Your task to perform on an android device: Search for seafood restaurants on Google Maps Image 0: 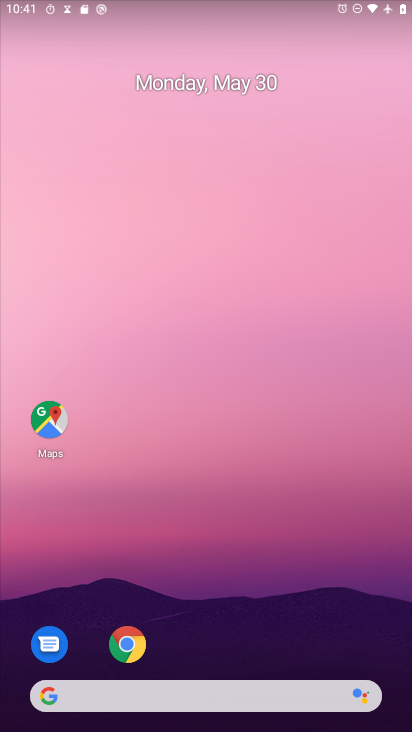
Step 0: drag from (213, 623) to (259, 52)
Your task to perform on an android device: Search for seafood restaurants on Google Maps Image 1: 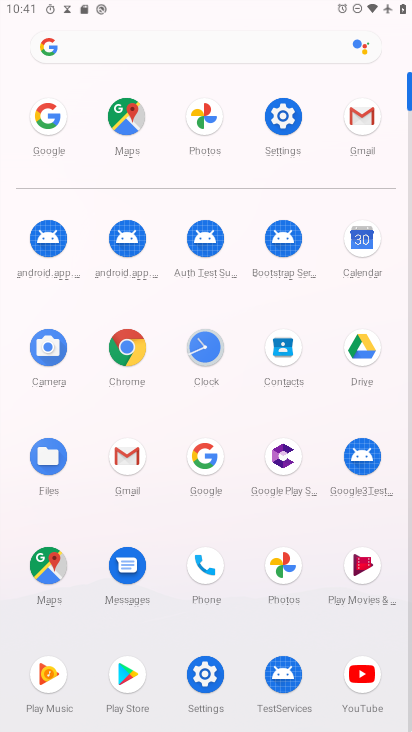
Step 1: click (46, 570)
Your task to perform on an android device: Search for seafood restaurants on Google Maps Image 2: 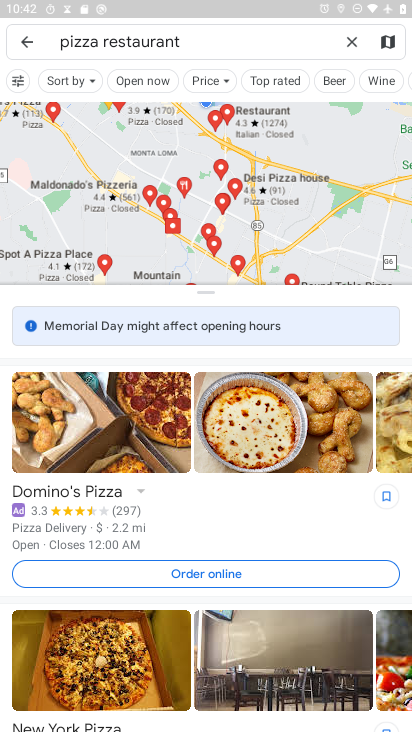
Step 2: click (350, 43)
Your task to perform on an android device: Search for seafood restaurants on Google Maps Image 3: 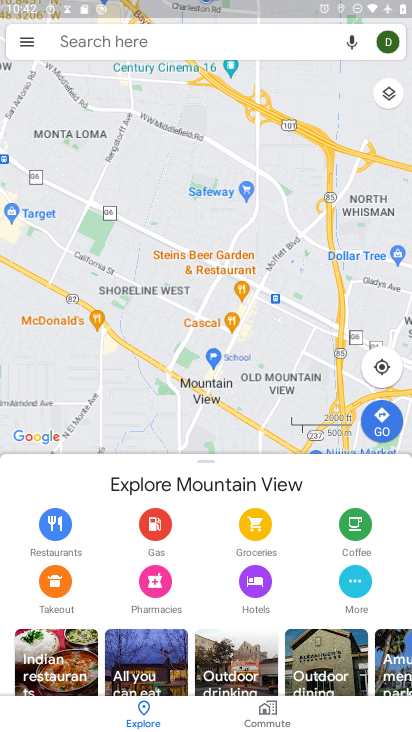
Step 3: click (138, 49)
Your task to perform on an android device: Search for seafood restaurants on Google Maps Image 4: 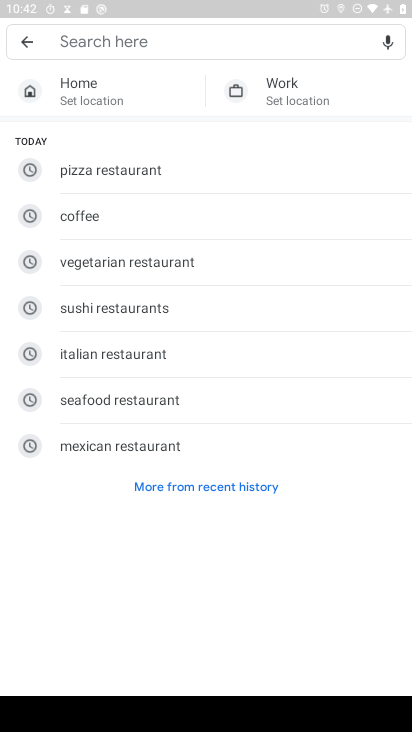
Step 4: click (115, 399)
Your task to perform on an android device: Search for seafood restaurants on Google Maps Image 5: 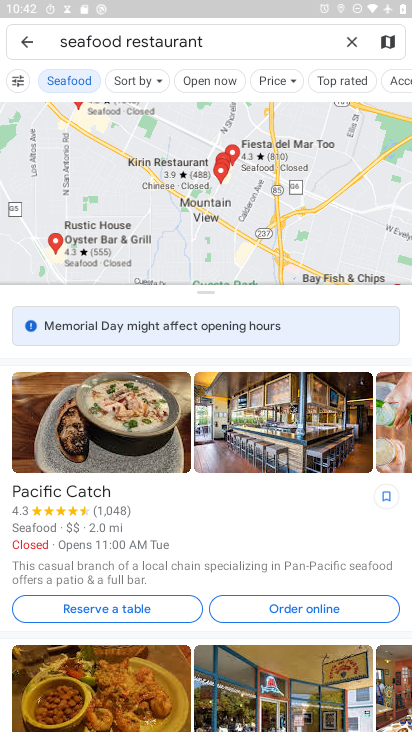
Step 5: task complete